Your task to perform on an android device: toggle notifications settings in the gmail app Image 0: 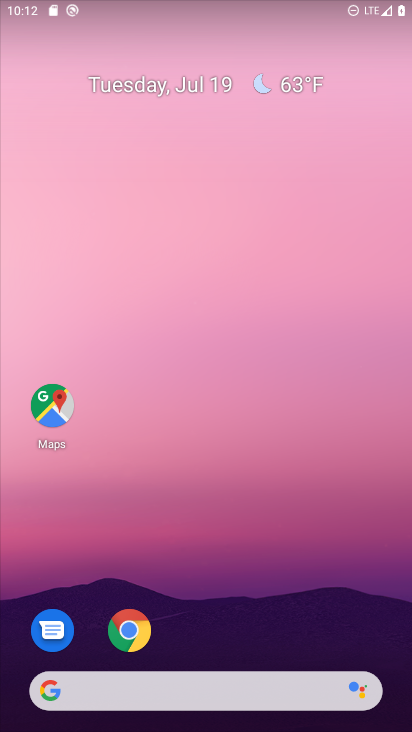
Step 0: press home button
Your task to perform on an android device: toggle notifications settings in the gmail app Image 1: 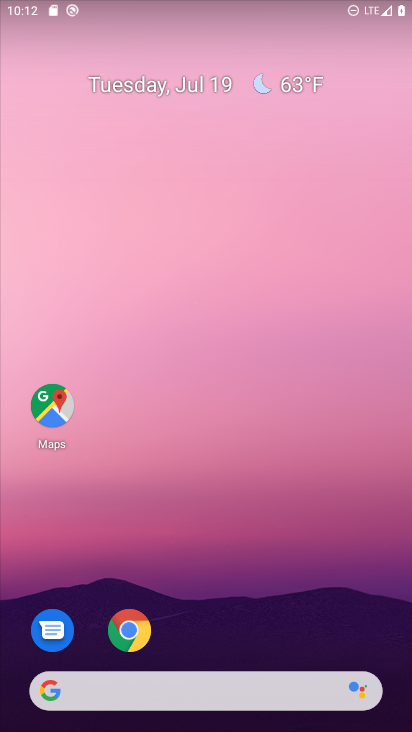
Step 1: drag from (190, 683) to (213, 168)
Your task to perform on an android device: toggle notifications settings in the gmail app Image 2: 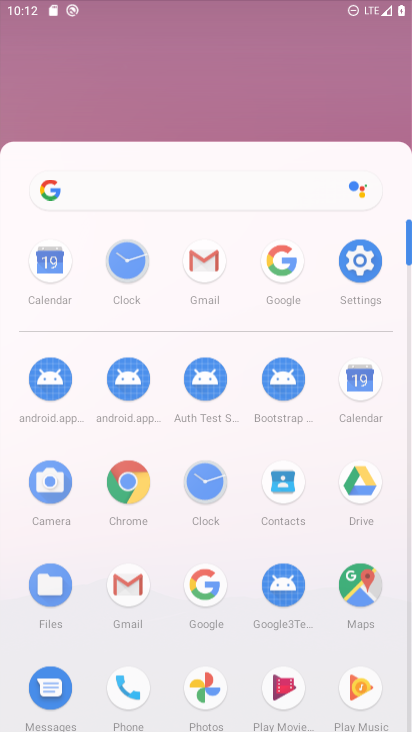
Step 2: drag from (232, 119) to (255, 79)
Your task to perform on an android device: toggle notifications settings in the gmail app Image 3: 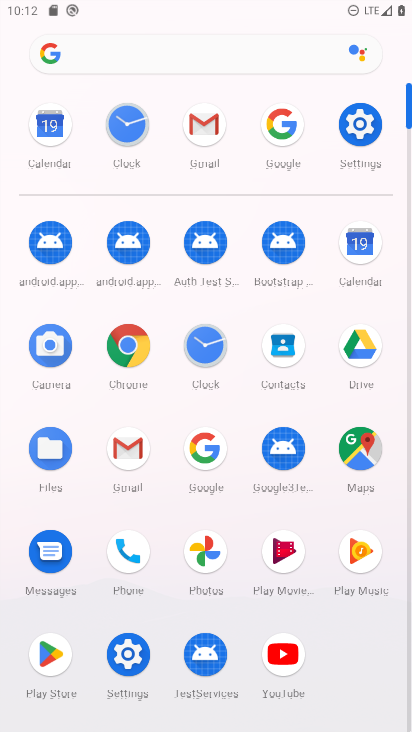
Step 3: click (202, 122)
Your task to perform on an android device: toggle notifications settings in the gmail app Image 4: 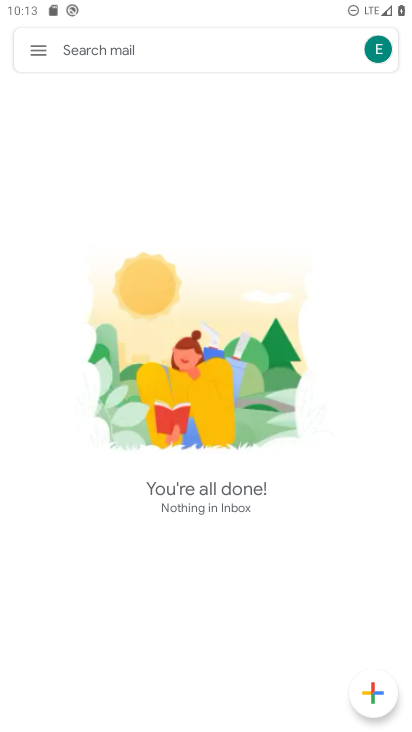
Step 4: click (40, 48)
Your task to perform on an android device: toggle notifications settings in the gmail app Image 5: 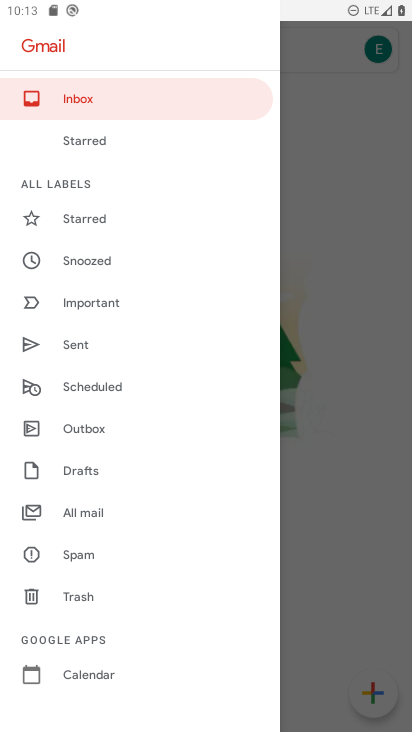
Step 5: drag from (101, 488) to (140, 412)
Your task to perform on an android device: toggle notifications settings in the gmail app Image 6: 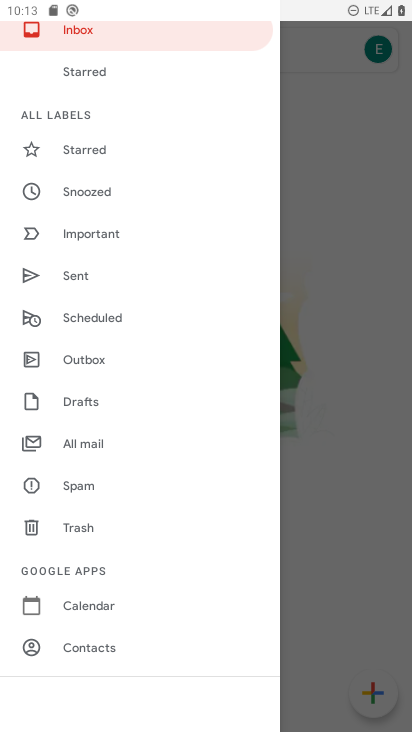
Step 6: drag from (94, 534) to (122, 468)
Your task to perform on an android device: toggle notifications settings in the gmail app Image 7: 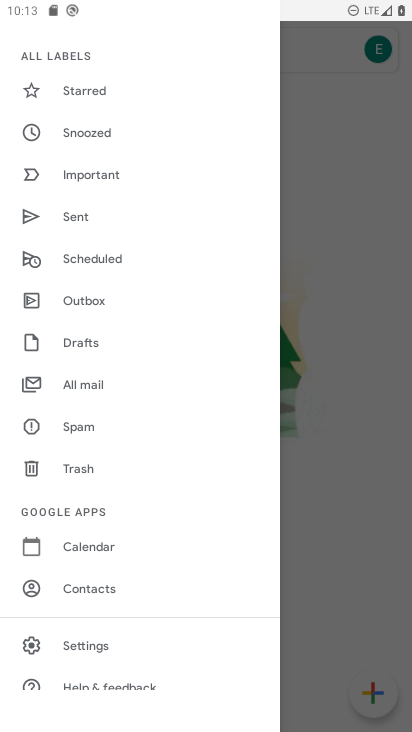
Step 7: drag from (87, 591) to (143, 491)
Your task to perform on an android device: toggle notifications settings in the gmail app Image 8: 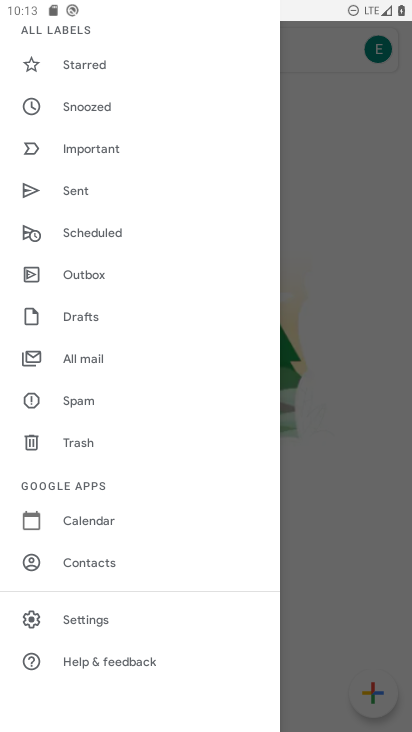
Step 8: click (105, 621)
Your task to perform on an android device: toggle notifications settings in the gmail app Image 9: 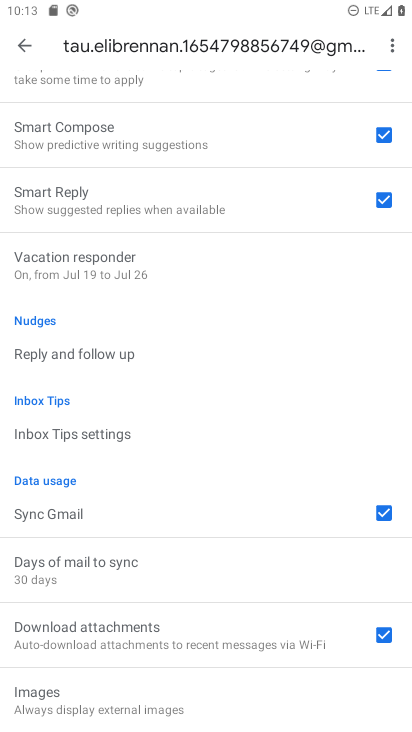
Step 9: drag from (207, 252) to (220, 467)
Your task to perform on an android device: toggle notifications settings in the gmail app Image 10: 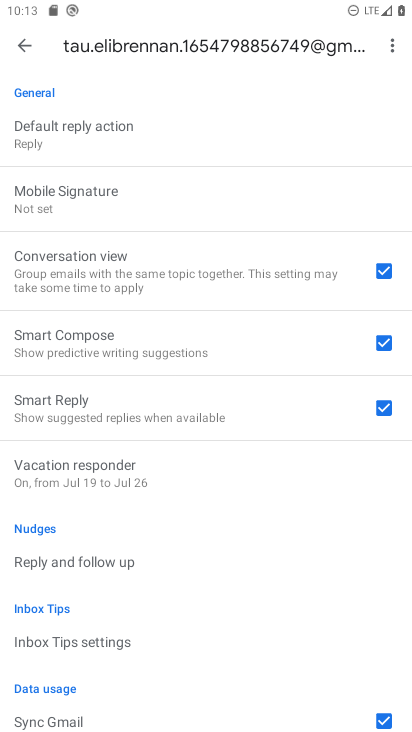
Step 10: drag from (200, 149) to (215, 374)
Your task to perform on an android device: toggle notifications settings in the gmail app Image 11: 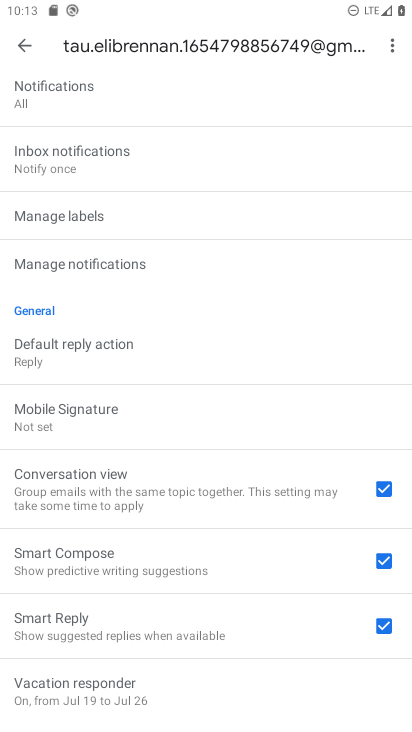
Step 11: click (140, 268)
Your task to perform on an android device: toggle notifications settings in the gmail app Image 12: 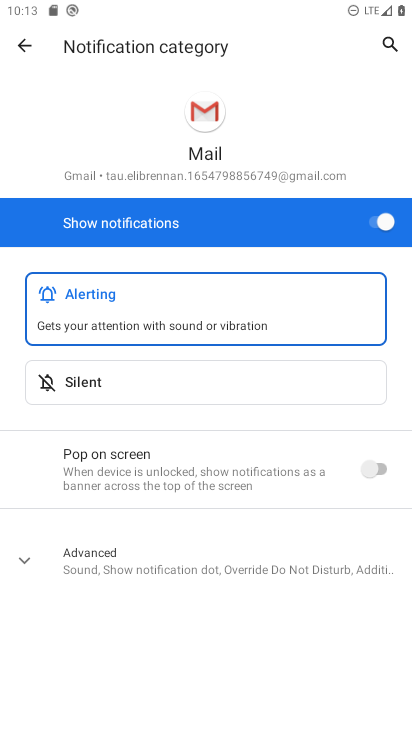
Step 12: click (378, 226)
Your task to perform on an android device: toggle notifications settings in the gmail app Image 13: 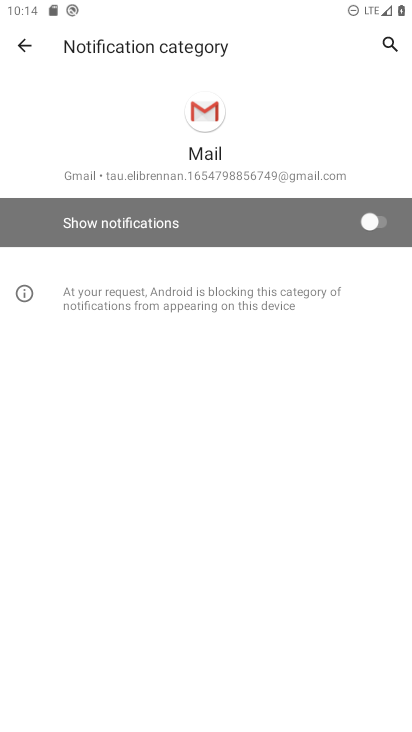
Step 13: task complete